Your task to perform on an android device: toggle data saver in the chrome app Image 0: 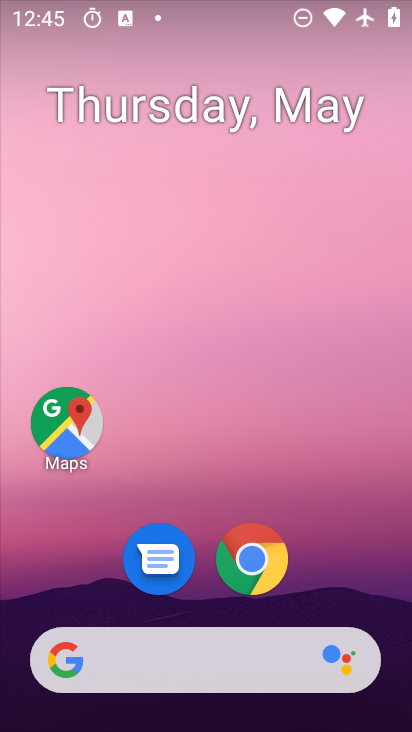
Step 0: drag from (204, 552) to (204, 241)
Your task to perform on an android device: toggle data saver in the chrome app Image 1: 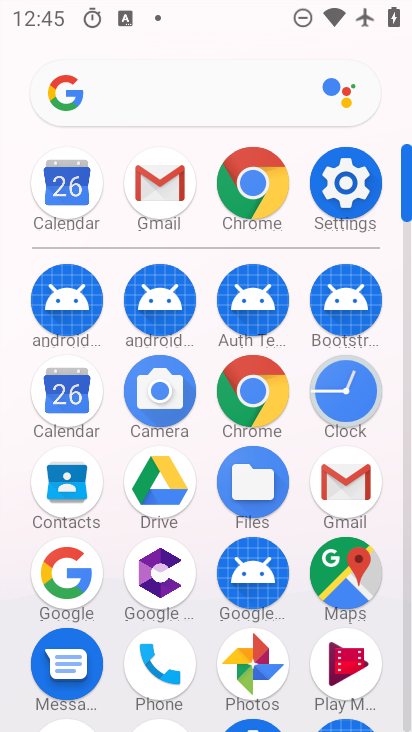
Step 1: click (262, 198)
Your task to perform on an android device: toggle data saver in the chrome app Image 2: 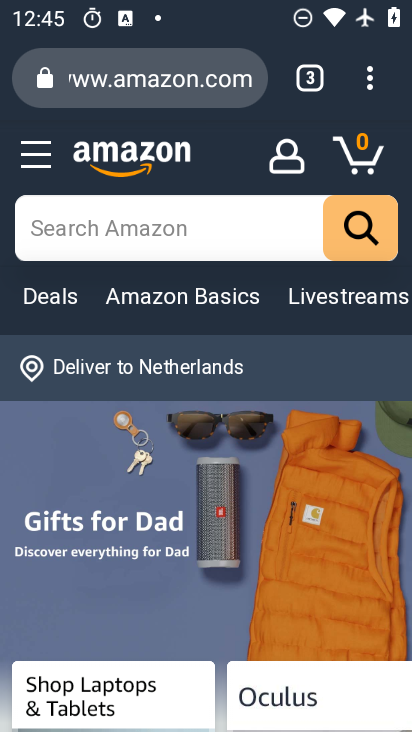
Step 2: click (374, 80)
Your task to perform on an android device: toggle data saver in the chrome app Image 3: 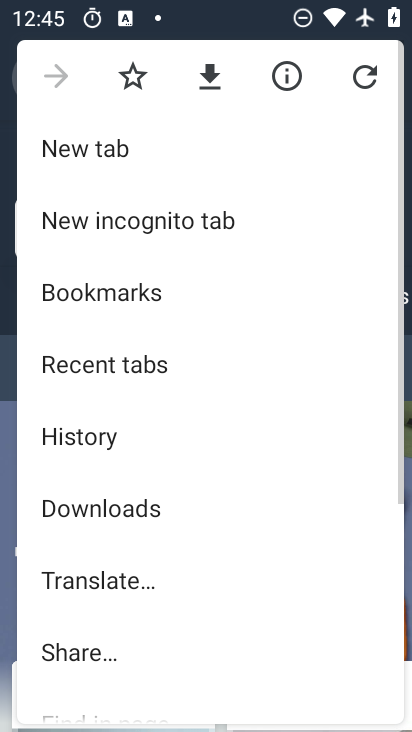
Step 3: drag from (214, 546) to (220, 218)
Your task to perform on an android device: toggle data saver in the chrome app Image 4: 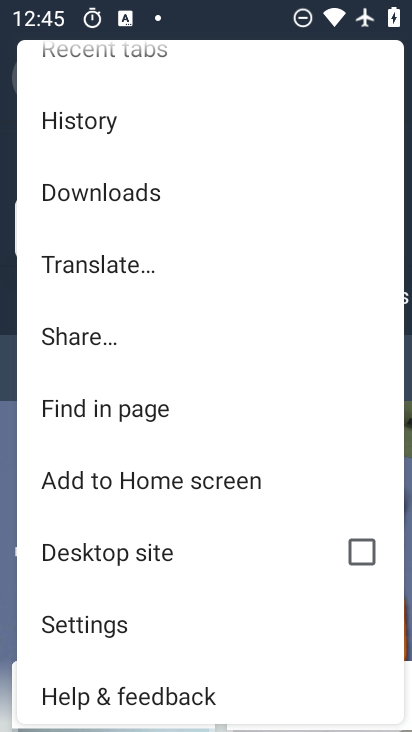
Step 4: click (118, 627)
Your task to perform on an android device: toggle data saver in the chrome app Image 5: 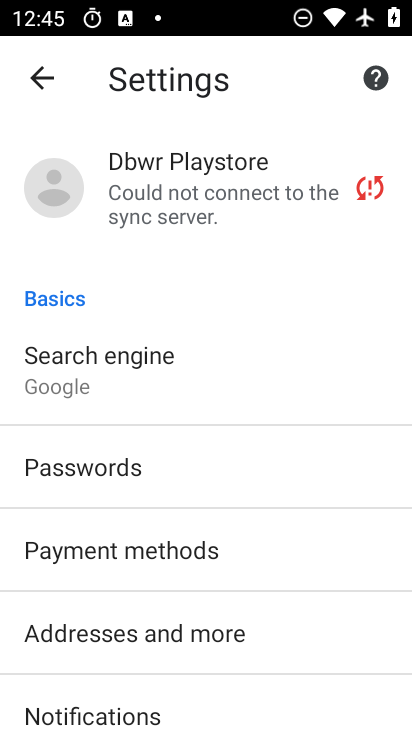
Step 5: drag from (160, 614) to (177, 316)
Your task to perform on an android device: toggle data saver in the chrome app Image 6: 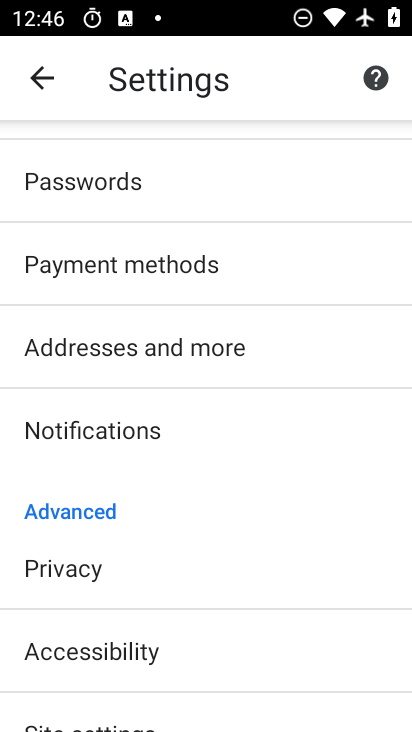
Step 6: drag from (139, 576) to (179, 386)
Your task to perform on an android device: toggle data saver in the chrome app Image 7: 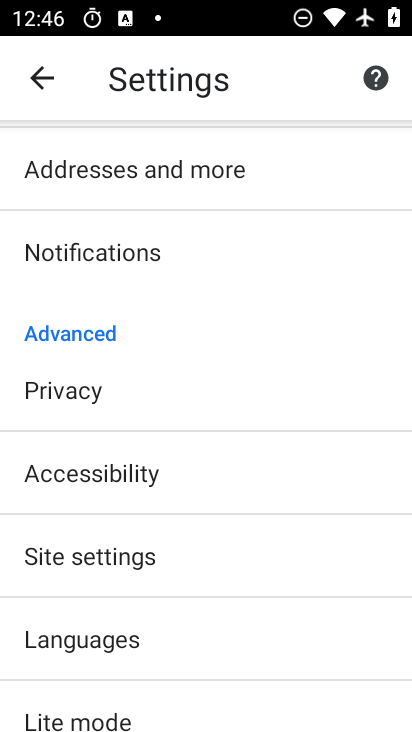
Step 7: drag from (139, 611) to (164, 379)
Your task to perform on an android device: toggle data saver in the chrome app Image 8: 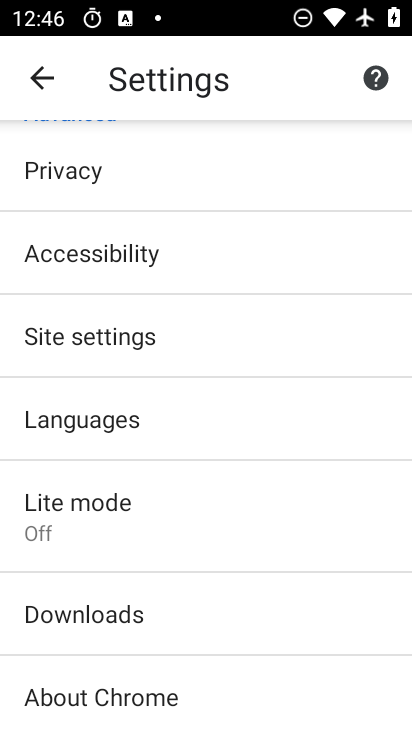
Step 8: click (153, 511)
Your task to perform on an android device: toggle data saver in the chrome app Image 9: 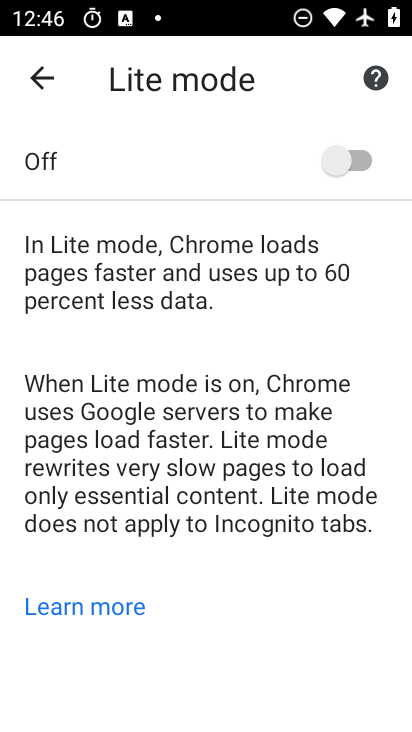
Step 9: click (258, 146)
Your task to perform on an android device: toggle data saver in the chrome app Image 10: 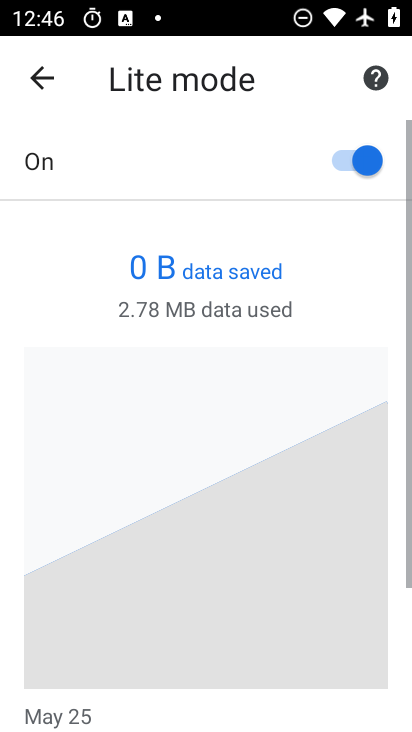
Step 10: task complete